Your task to perform on an android device: check out phone information Image 0: 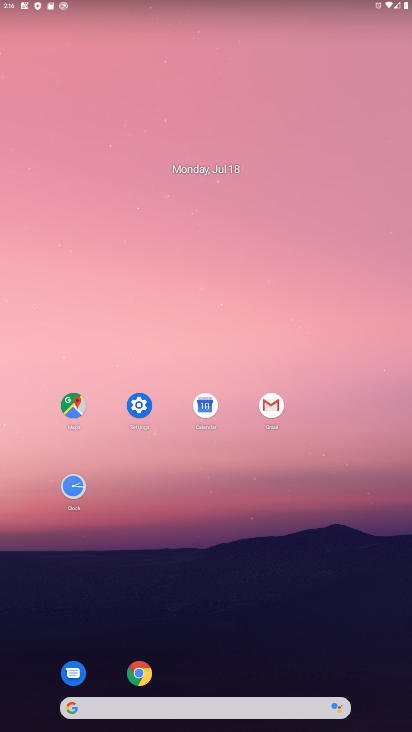
Step 0: drag from (395, 669) to (354, 154)
Your task to perform on an android device: check out phone information Image 1: 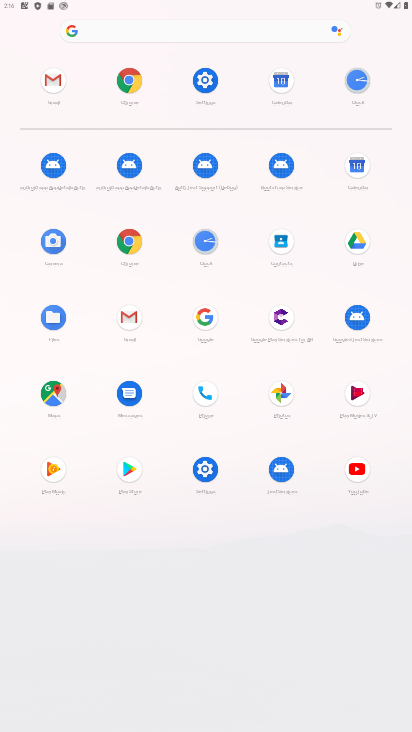
Step 1: click (193, 71)
Your task to perform on an android device: check out phone information Image 2: 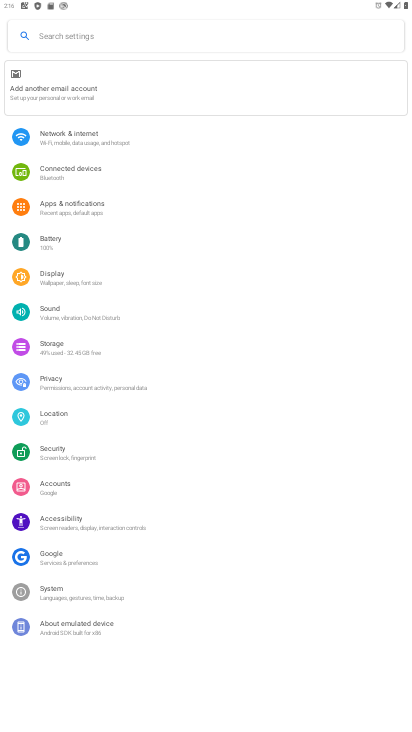
Step 2: click (53, 625)
Your task to perform on an android device: check out phone information Image 3: 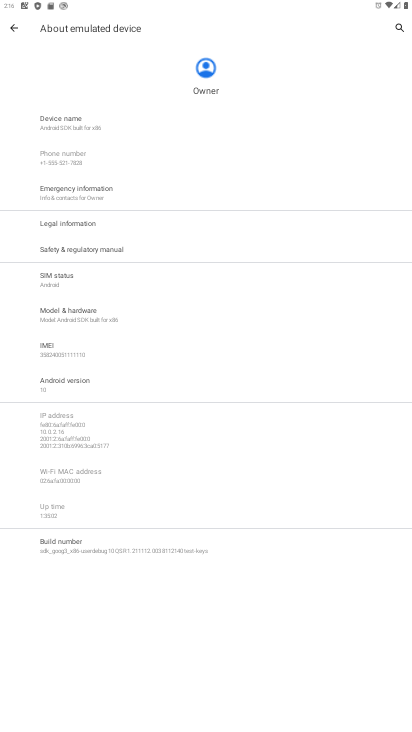
Step 3: task complete